Your task to perform on an android device: open the mobile data screen to see how much data has been used Image 0: 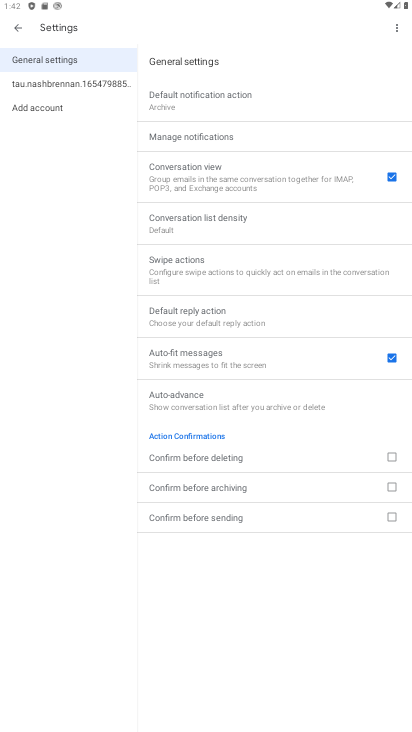
Step 0: press home button
Your task to perform on an android device: open the mobile data screen to see how much data has been used Image 1: 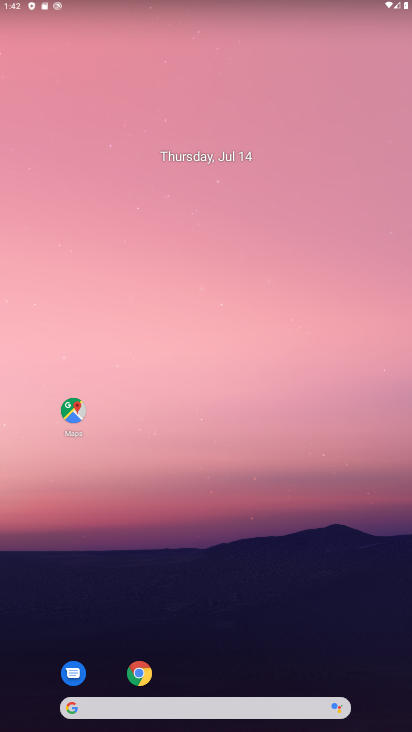
Step 1: drag from (190, 8) to (142, 578)
Your task to perform on an android device: open the mobile data screen to see how much data has been used Image 2: 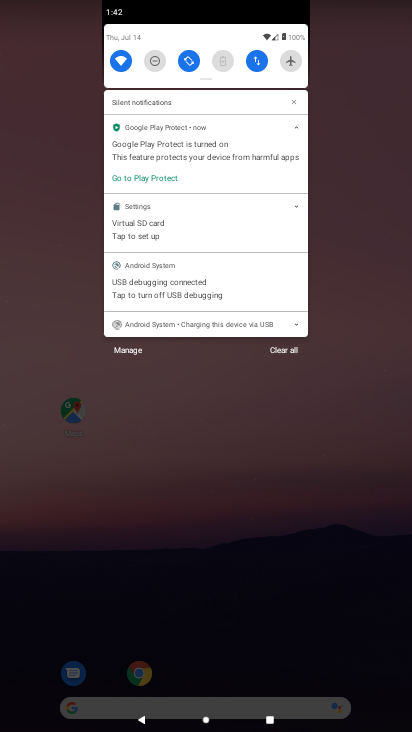
Step 2: click (256, 65)
Your task to perform on an android device: open the mobile data screen to see how much data has been used Image 3: 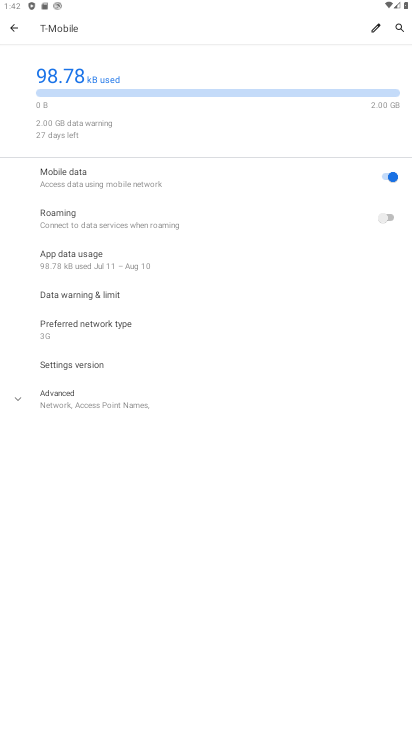
Step 3: task complete